Your task to perform on an android device: show emergency info Image 0: 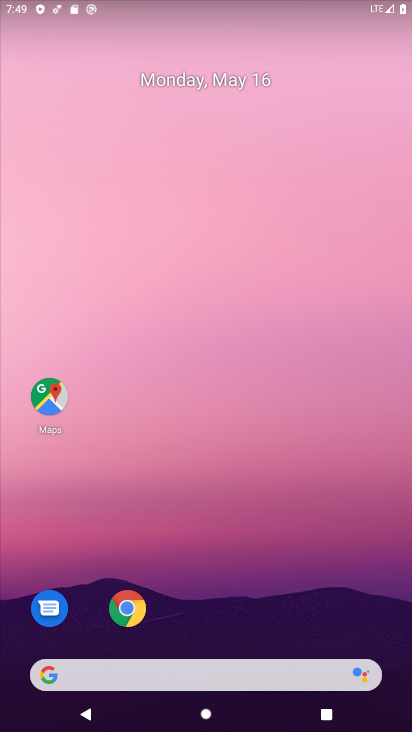
Step 0: drag from (247, 586) to (225, 138)
Your task to perform on an android device: show emergency info Image 1: 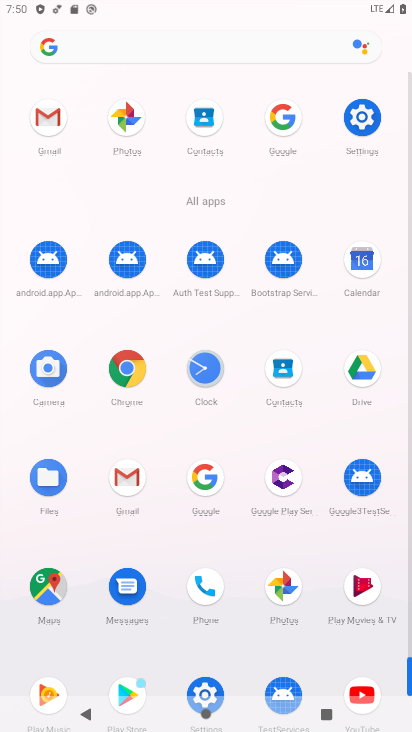
Step 1: click (360, 113)
Your task to perform on an android device: show emergency info Image 2: 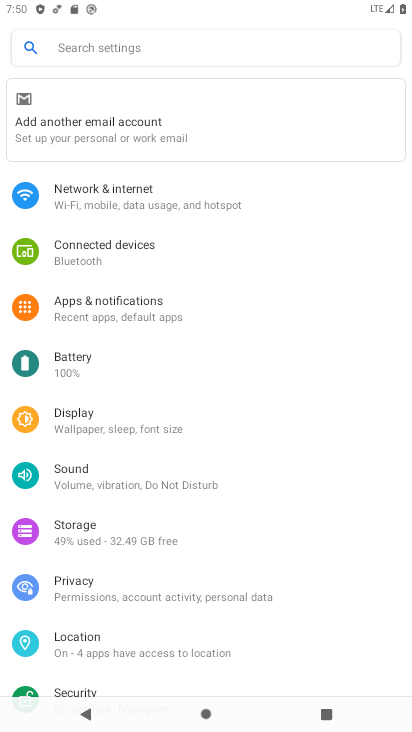
Step 2: drag from (104, 407) to (136, 330)
Your task to perform on an android device: show emergency info Image 3: 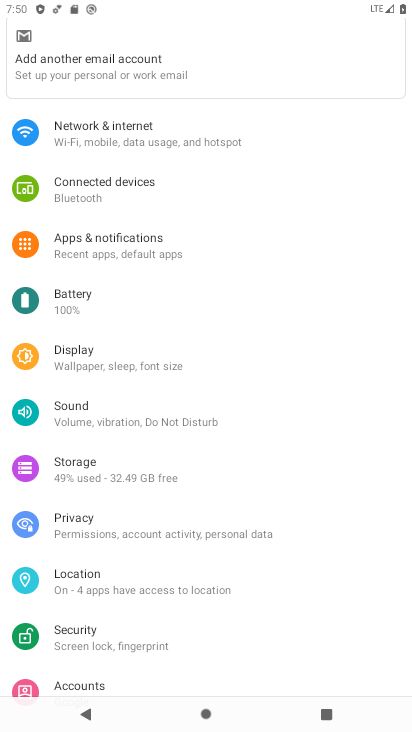
Step 3: drag from (60, 511) to (136, 427)
Your task to perform on an android device: show emergency info Image 4: 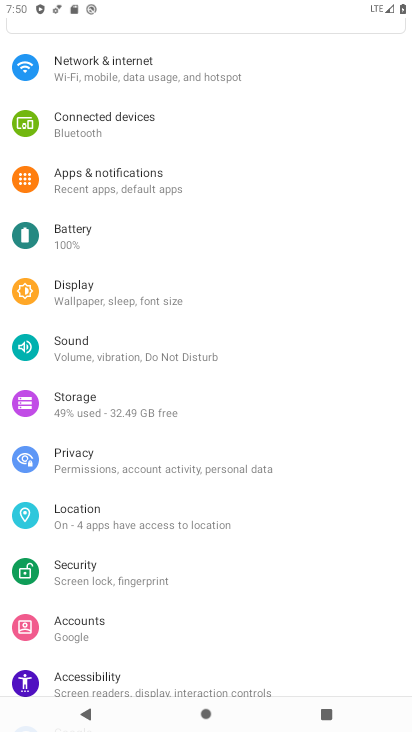
Step 4: drag from (132, 563) to (202, 465)
Your task to perform on an android device: show emergency info Image 5: 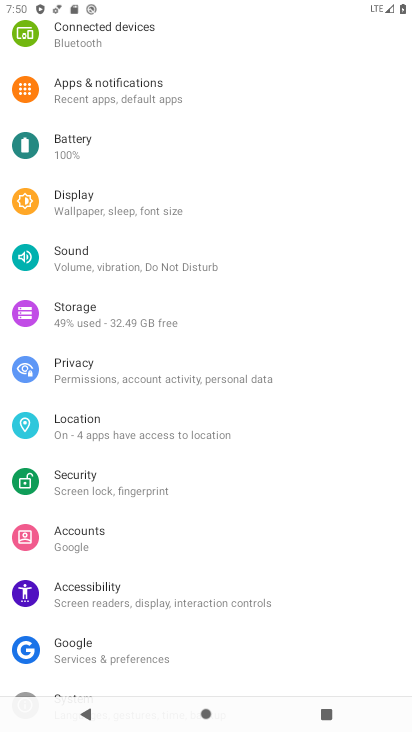
Step 5: drag from (139, 577) to (197, 476)
Your task to perform on an android device: show emergency info Image 6: 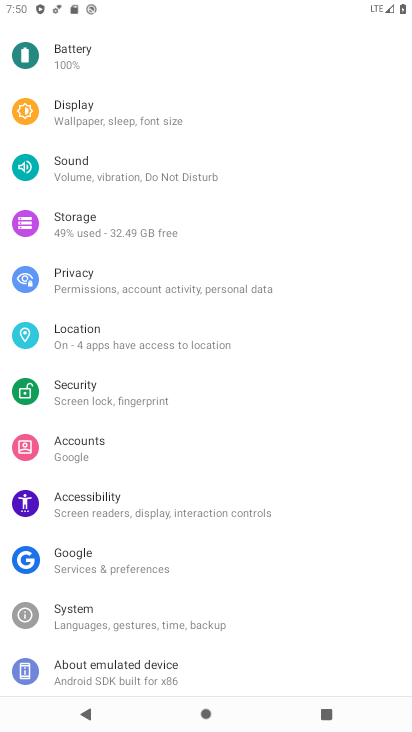
Step 6: click (96, 669)
Your task to perform on an android device: show emergency info Image 7: 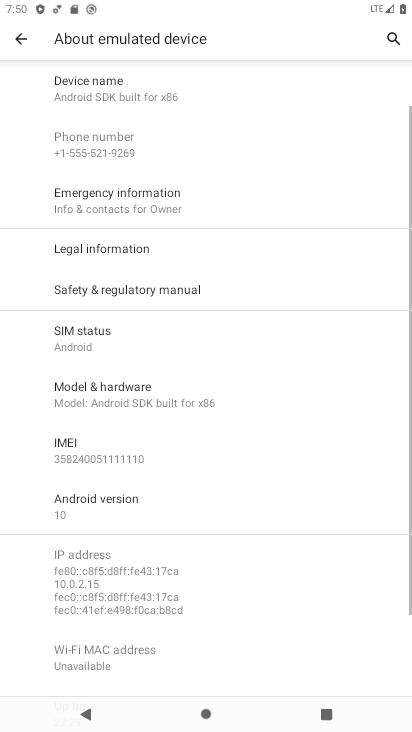
Step 7: click (107, 207)
Your task to perform on an android device: show emergency info Image 8: 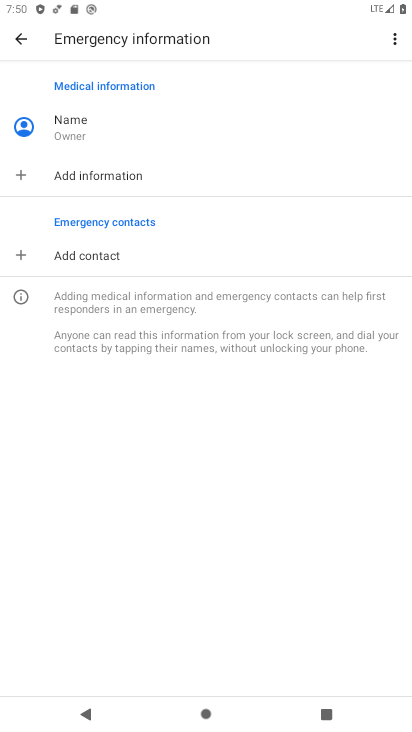
Step 8: task complete